Your task to perform on an android device: all mails in gmail Image 0: 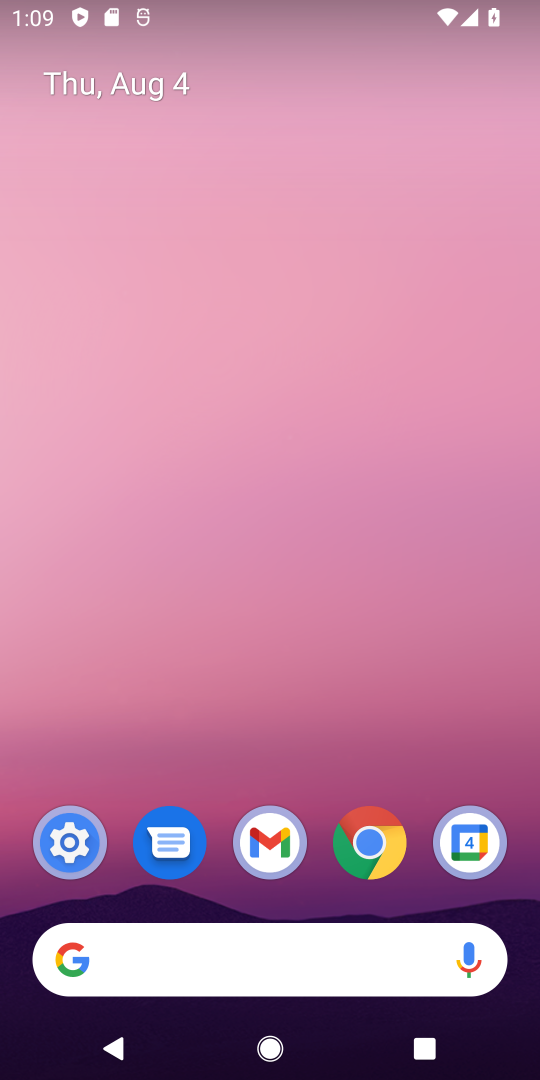
Step 0: click (268, 835)
Your task to perform on an android device: all mails in gmail Image 1: 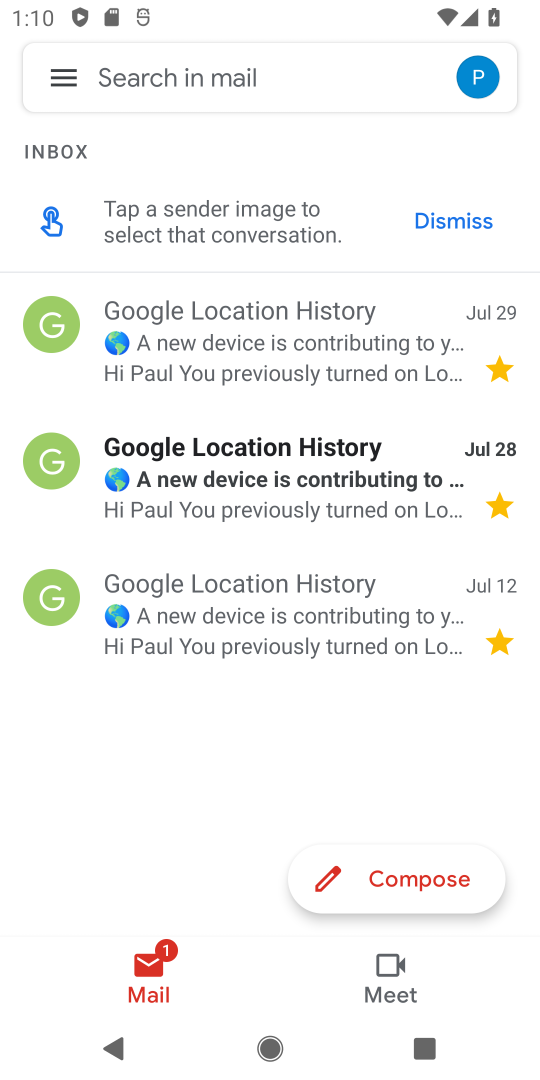
Step 1: click (64, 81)
Your task to perform on an android device: all mails in gmail Image 2: 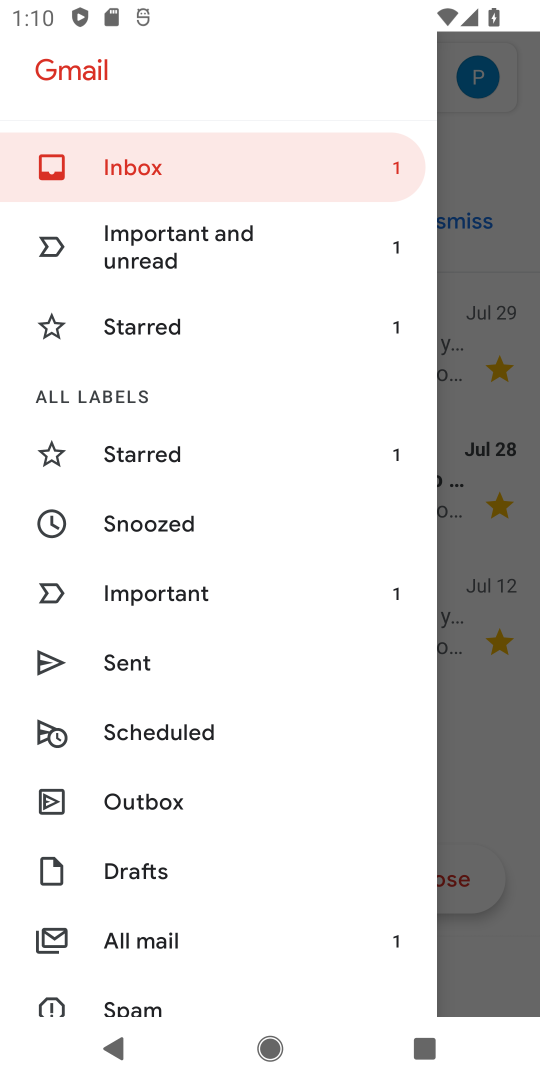
Step 2: click (151, 947)
Your task to perform on an android device: all mails in gmail Image 3: 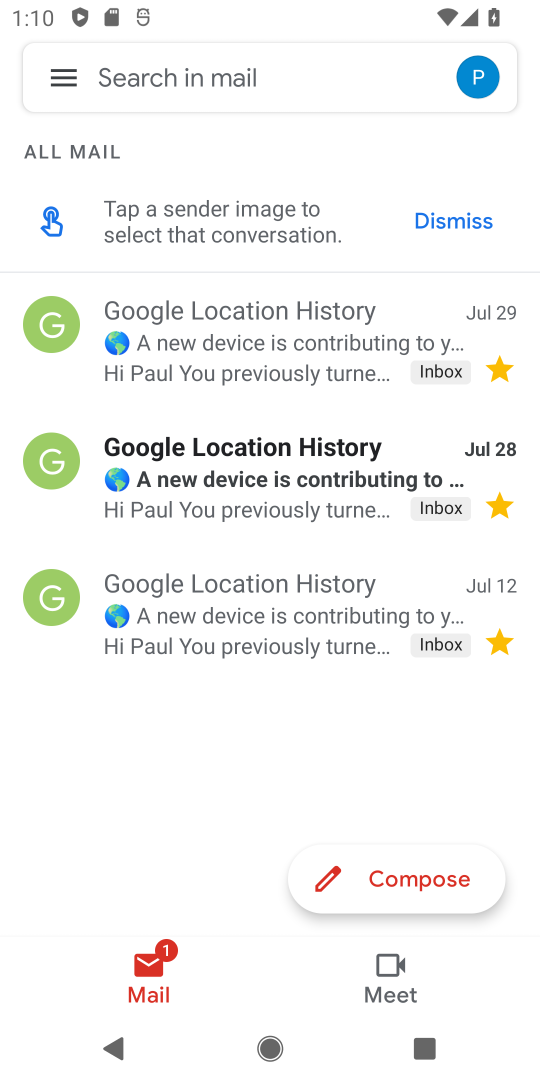
Step 3: task complete